Your task to perform on an android device: find snoozed emails in the gmail app Image 0: 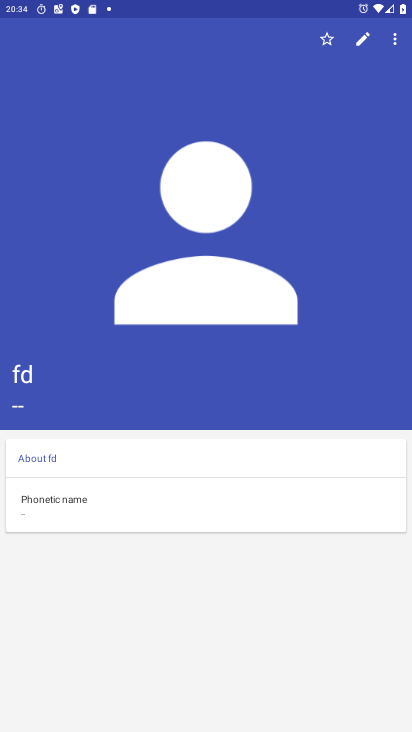
Step 0: press home button
Your task to perform on an android device: find snoozed emails in the gmail app Image 1: 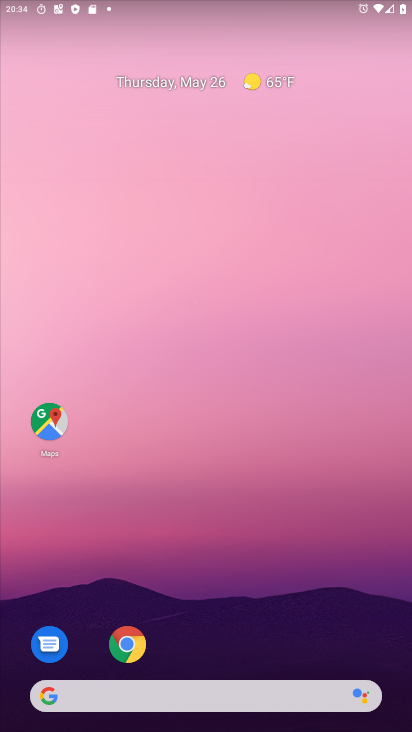
Step 1: drag from (201, 557) to (254, 4)
Your task to perform on an android device: find snoozed emails in the gmail app Image 2: 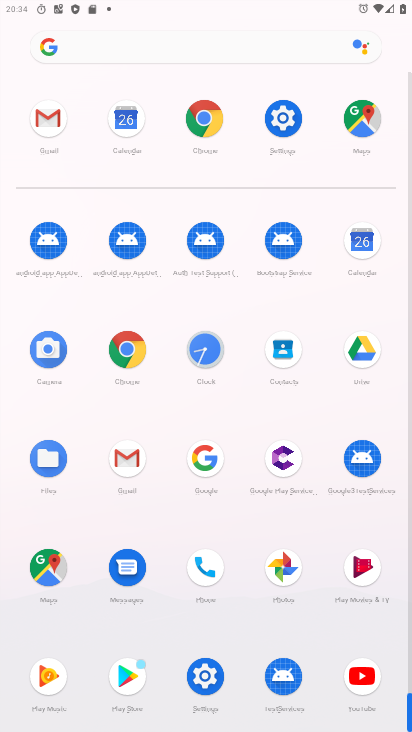
Step 2: click (104, 460)
Your task to perform on an android device: find snoozed emails in the gmail app Image 3: 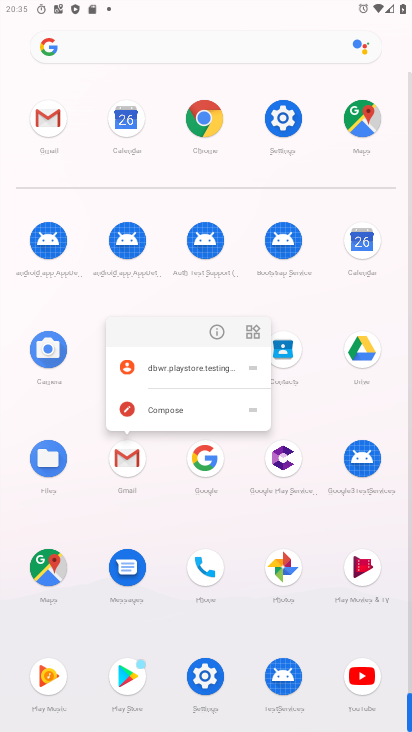
Step 3: click (217, 332)
Your task to perform on an android device: find snoozed emails in the gmail app Image 4: 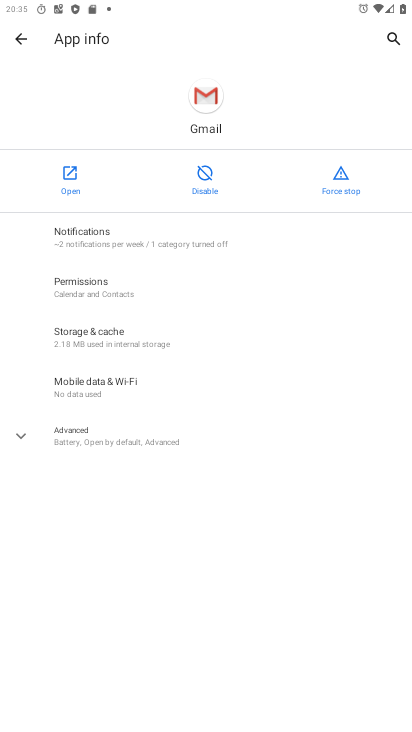
Step 4: click (68, 165)
Your task to perform on an android device: find snoozed emails in the gmail app Image 5: 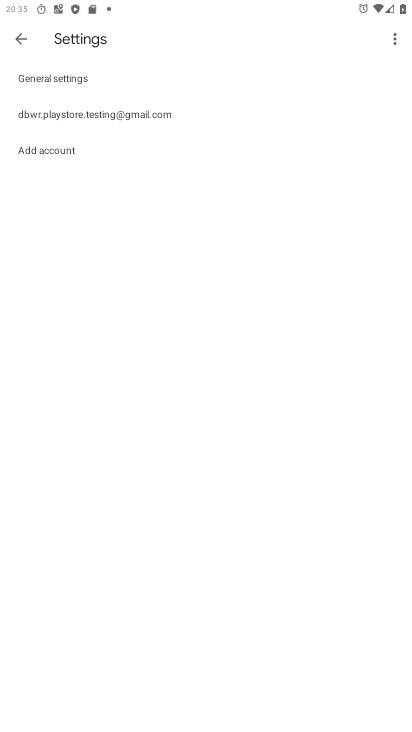
Step 5: click (21, 34)
Your task to perform on an android device: find snoozed emails in the gmail app Image 6: 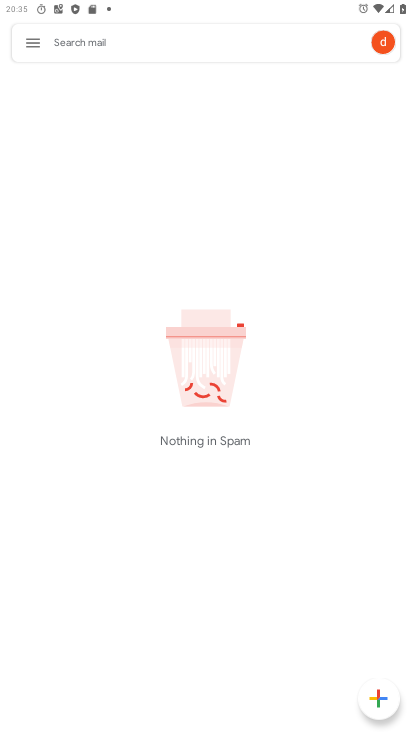
Step 6: click (36, 33)
Your task to perform on an android device: find snoozed emails in the gmail app Image 7: 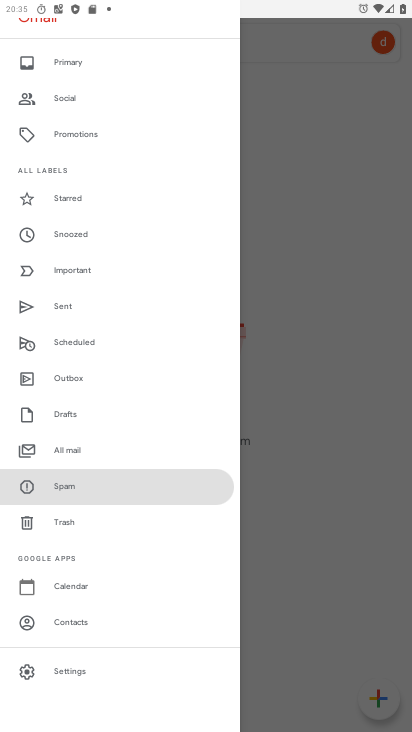
Step 7: click (78, 235)
Your task to perform on an android device: find snoozed emails in the gmail app Image 8: 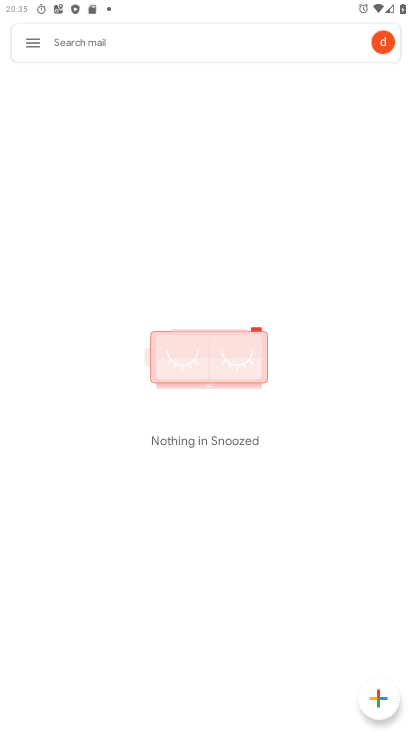
Step 8: drag from (232, 509) to (225, 226)
Your task to perform on an android device: find snoozed emails in the gmail app Image 9: 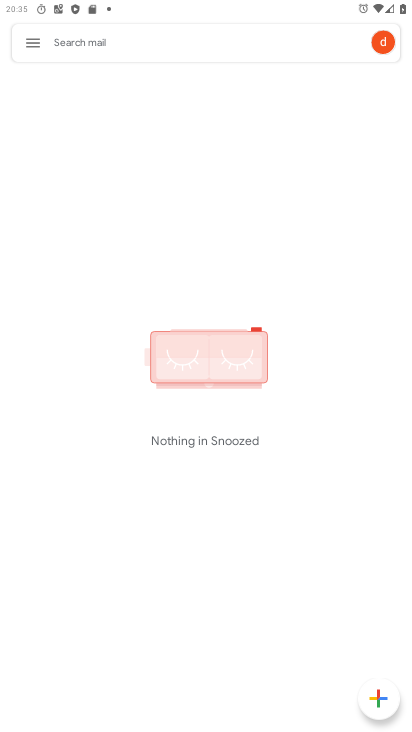
Step 9: click (300, 471)
Your task to perform on an android device: find snoozed emails in the gmail app Image 10: 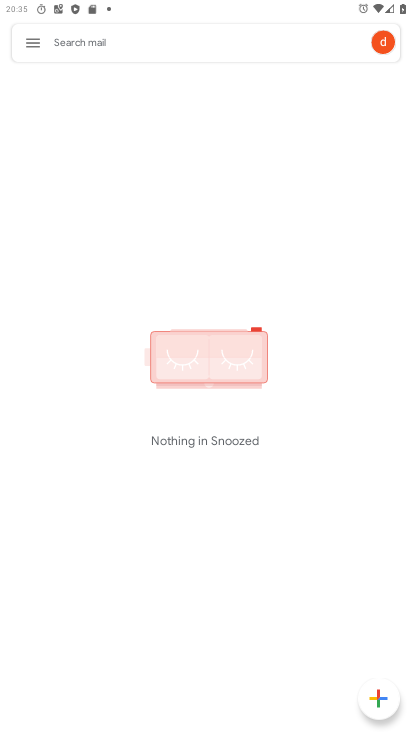
Step 10: click (291, 463)
Your task to perform on an android device: find snoozed emails in the gmail app Image 11: 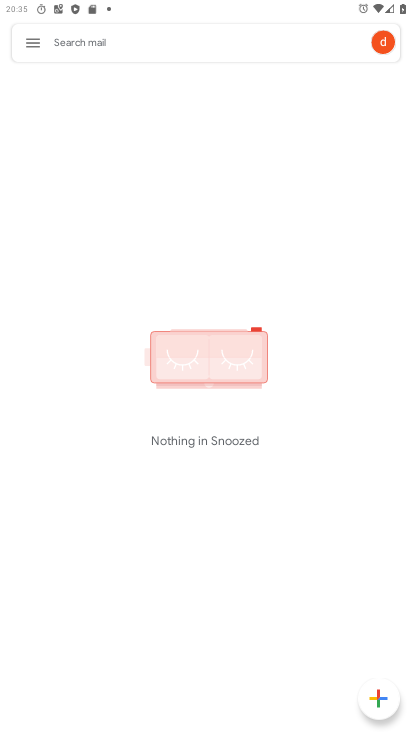
Step 11: drag from (239, 643) to (237, 377)
Your task to perform on an android device: find snoozed emails in the gmail app Image 12: 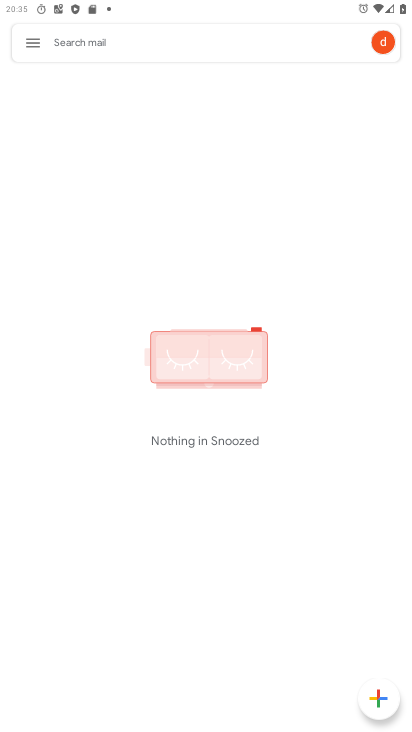
Step 12: click (236, 244)
Your task to perform on an android device: find snoozed emails in the gmail app Image 13: 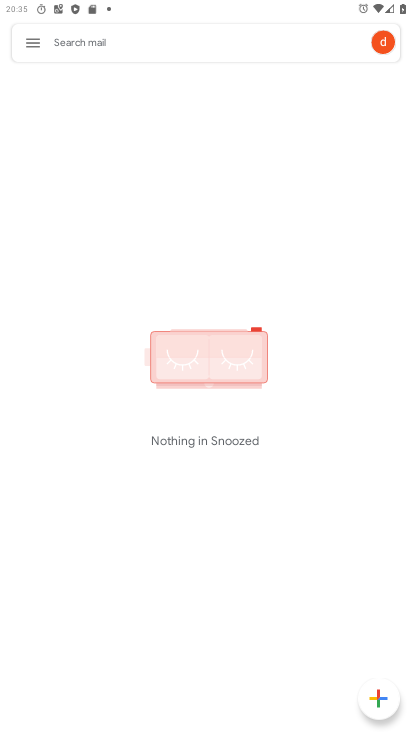
Step 13: click (236, 244)
Your task to perform on an android device: find snoozed emails in the gmail app Image 14: 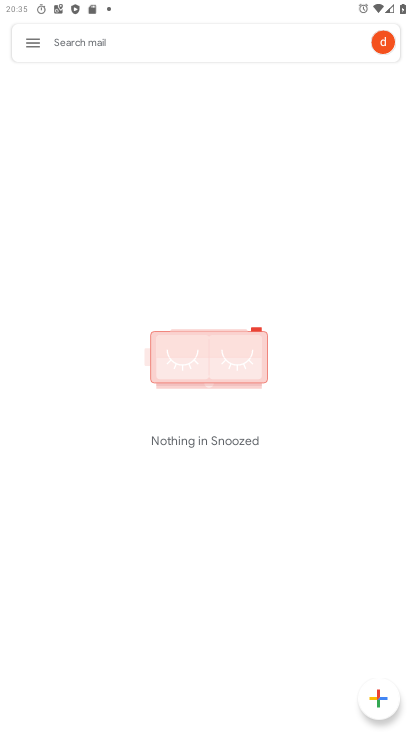
Step 14: click (238, 244)
Your task to perform on an android device: find snoozed emails in the gmail app Image 15: 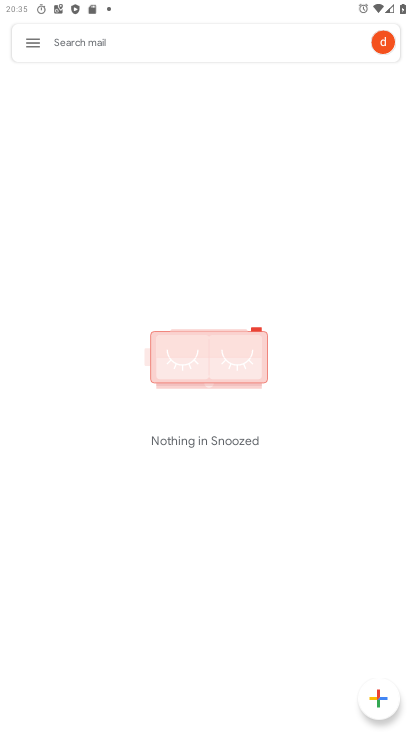
Step 15: drag from (279, 493) to (229, 263)
Your task to perform on an android device: find snoozed emails in the gmail app Image 16: 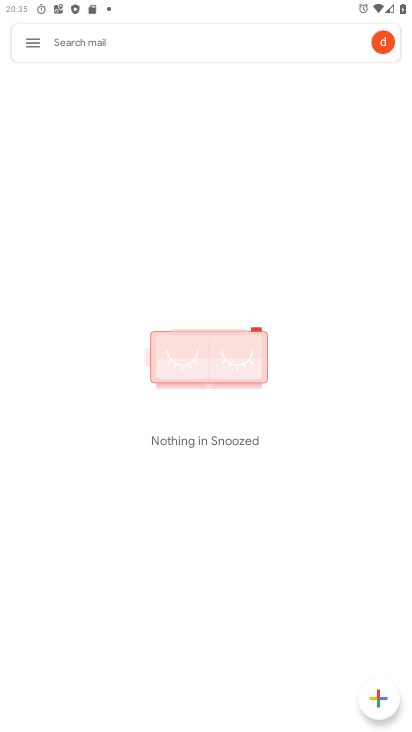
Step 16: drag from (233, 408) to (233, 267)
Your task to perform on an android device: find snoozed emails in the gmail app Image 17: 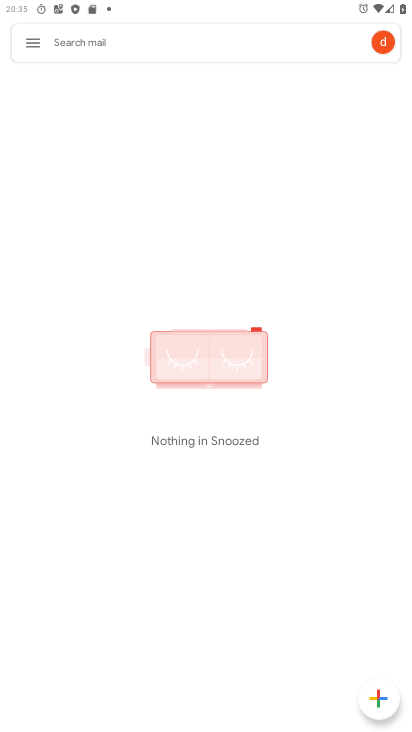
Step 17: click (211, 160)
Your task to perform on an android device: find snoozed emails in the gmail app Image 18: 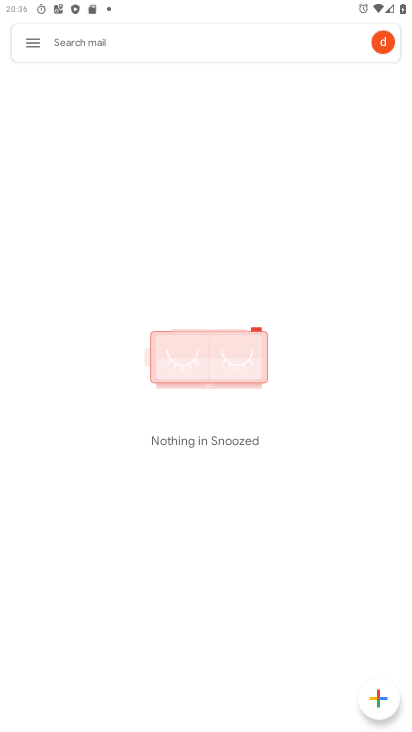
Step 18: task complete